Your task to perform on an android device: turn vacation reply on in the gmail app Image 0: 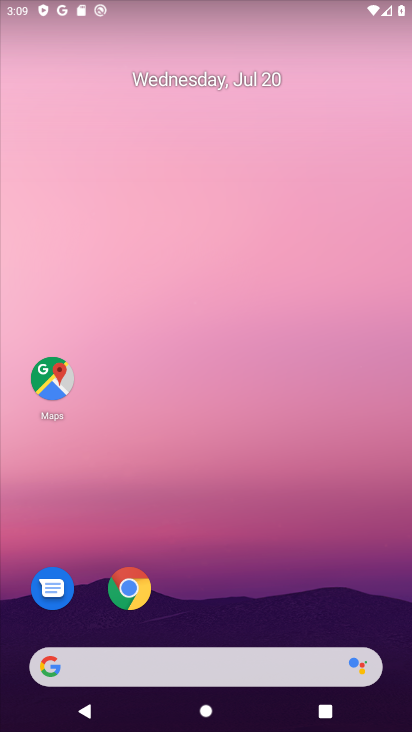
Step 0: press home button
Your task to perform on an android device: turn vacation reply on in the gmail app Image 1: 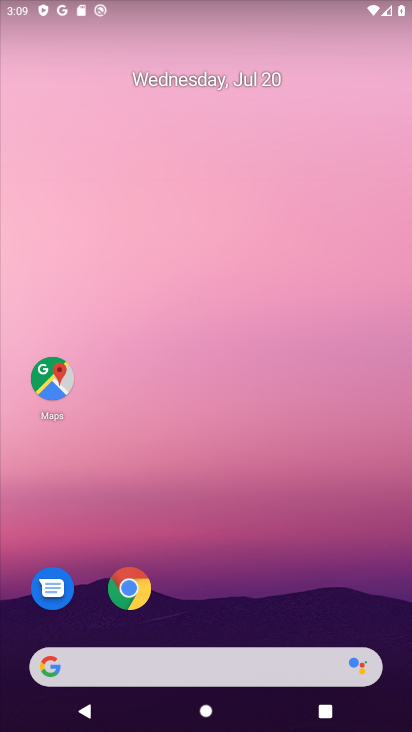
Step 1: press home button
Your task to perform on an android device: turn vacation reply on in the gmail app Image 2: 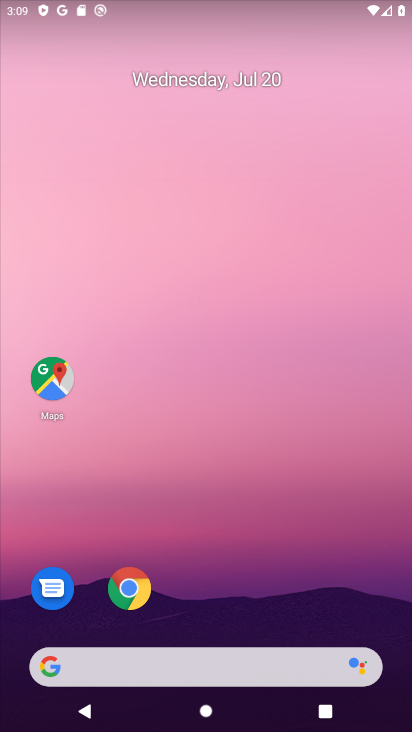
Step 2: drag from (213, 575) to (247, 278)
Your task to perform on an android device: turn vacation reply on in the gmail app Image 3: 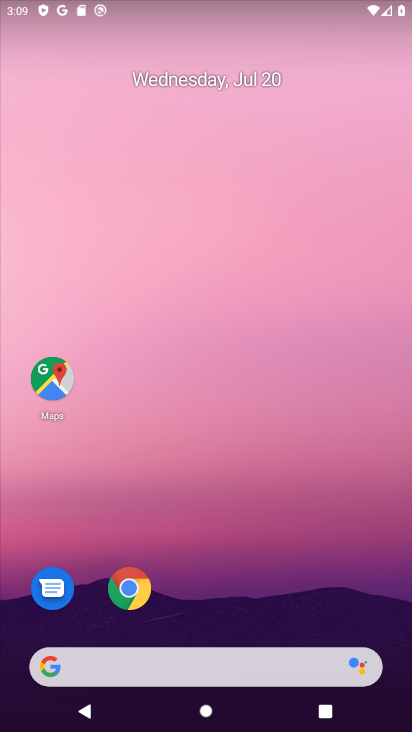
Step 3: click (151, 252)
Your task to perform on an android device: turn vacation reply on in the gmail app Image 4: 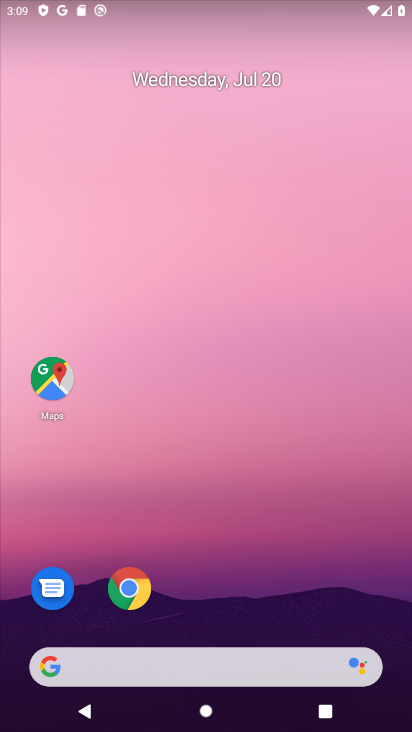
Step 4: drag from (215, 612) to (218, 100)
Your task to perform on an android device: turn vacation reply on in the gmail app Image 5: 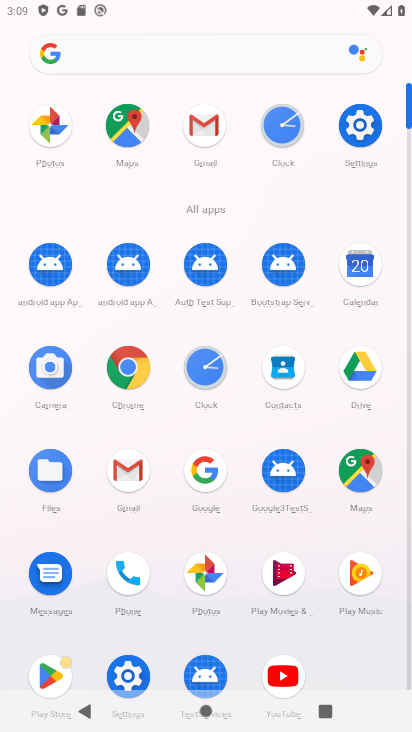
Step 5: click (218, 100)
Your task to perform on an android device: turn vacation reply on in the gmail app Image 6: 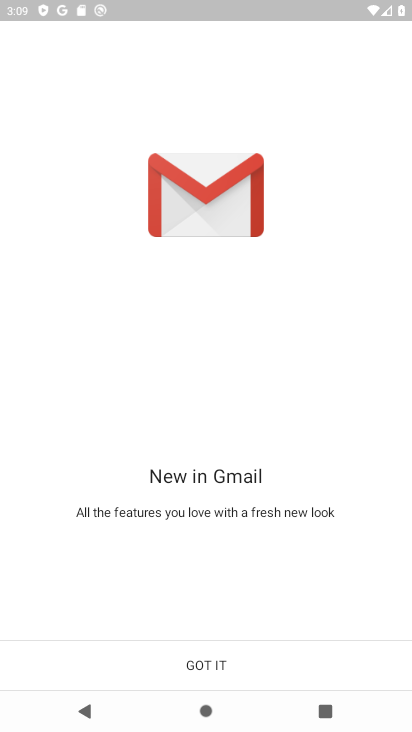
Step 6: click (281, 660)
Your task to perform on an android device: turn vacation reply on in the gmail app Image 7: 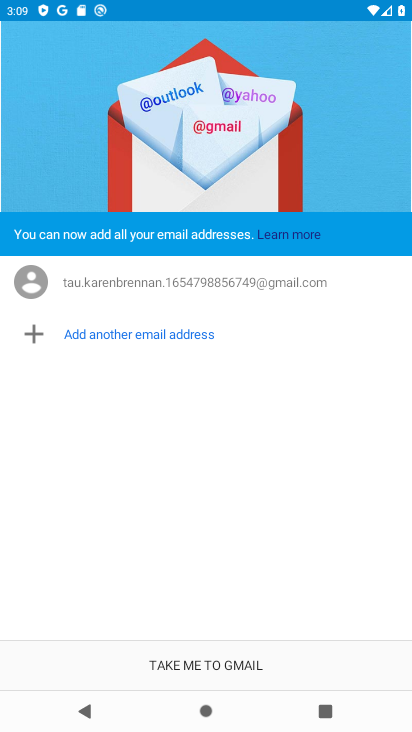
Step 7: click (194, 660)
Your task to perform on an android device: turn vacation reply on in the gmail app Image 8: 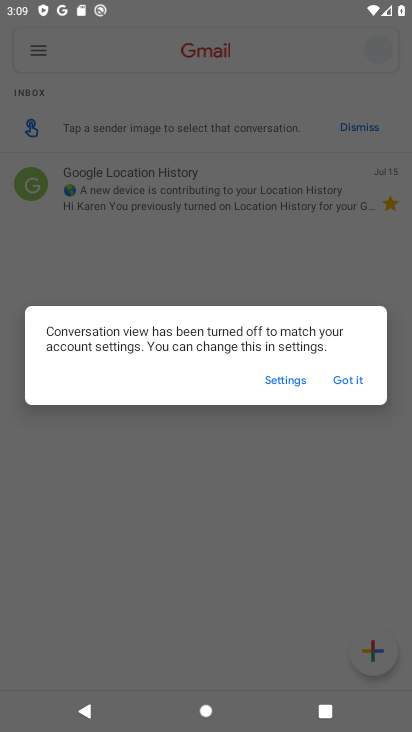
Step 8: click (359, 375)
Your task to perform on an android device: turn vacation reply on in the gmail app Image 9: 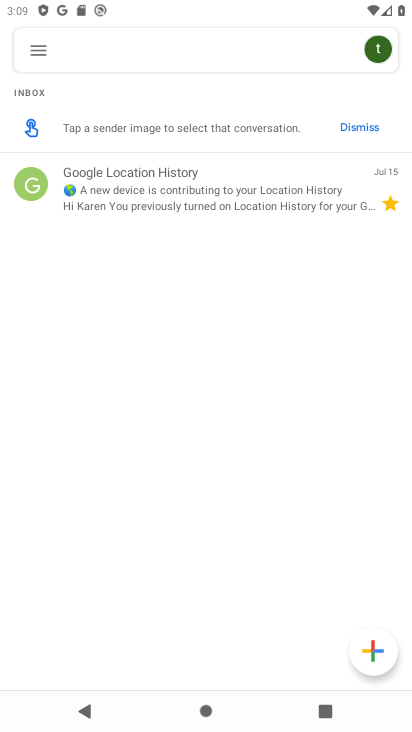
Step 9: click (65, 69)
Your task to perform on an android device: turn vacation reply on in the gmail app Image 10: 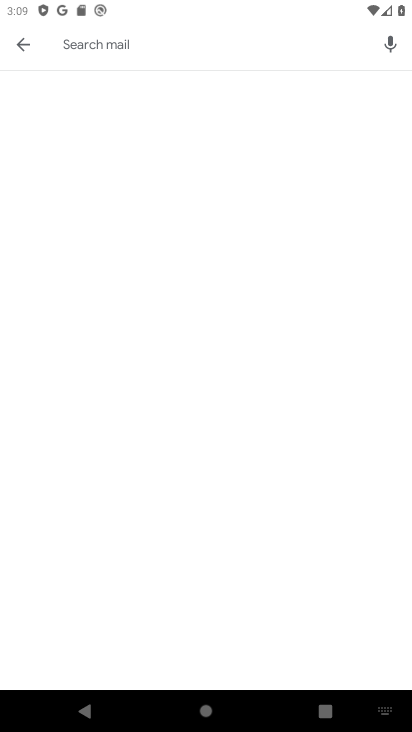
Step 10: click (28, 50)
Your task to perform on an android device: turn vacation reply on in the gmail app Image 11: 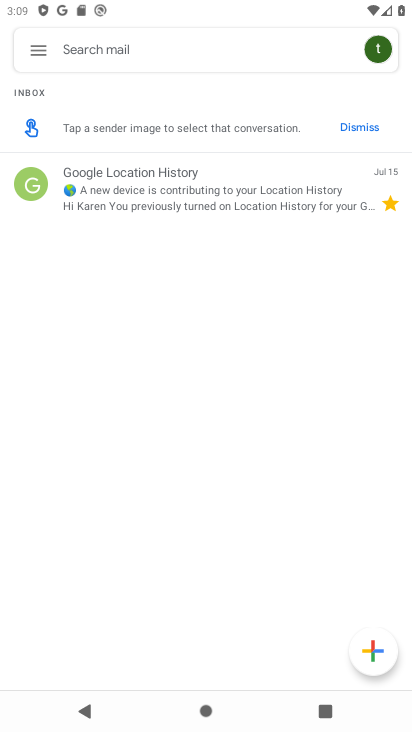
Step 11: click (28, 50)
Your task to perform on an android device: turn vacation reply on in the gmail app Image 12: 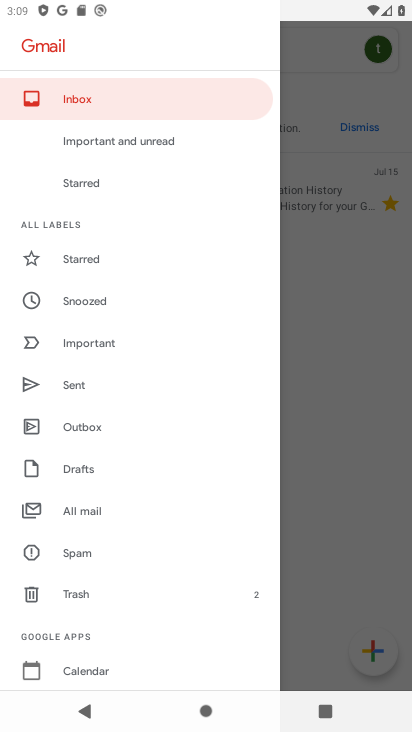
Step 12: drag from (109, 642) to (133, 243)
Your task to perform on an android device: turn vacation reply on in the gmail app Image 13: 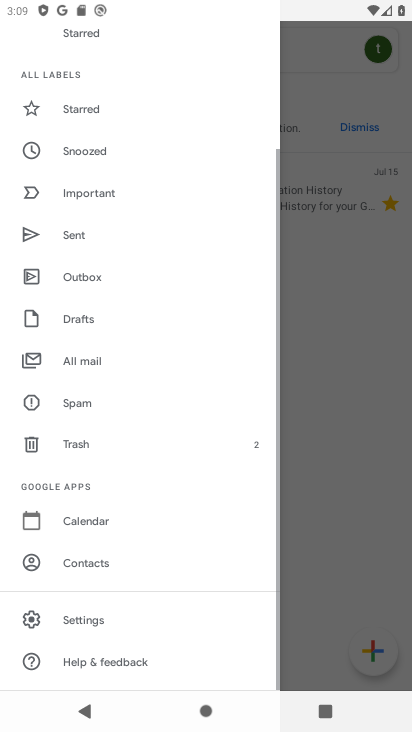
Step 13: click (111, 633)
Your task to perform on an android device: turn vacation reply on in the gmail app Image 14: 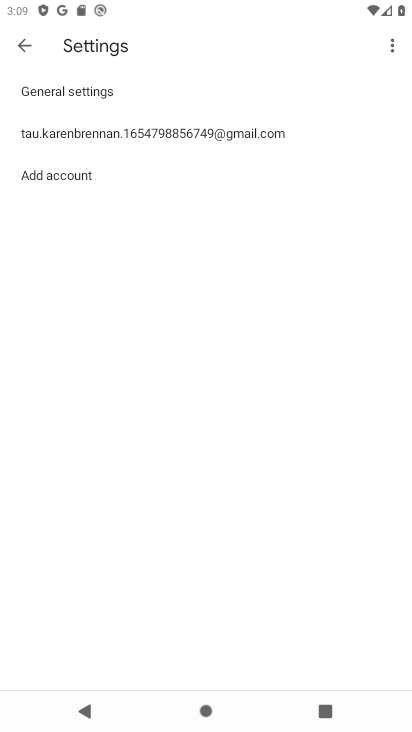
Step 14: click (234, 126)
Your task to perform on an android device: turn vacation reply on in the gmail app Image 15: 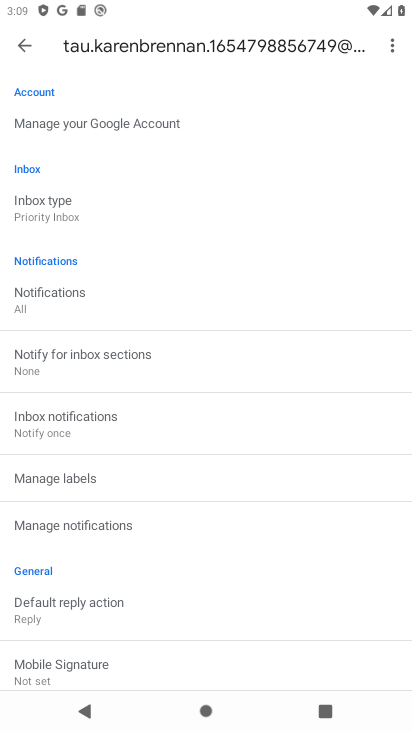
Step 15: drag from (113, 594) to (174, 63)
Your task to perform on an android device: turn vacation reply on in the gmail app Image 16: 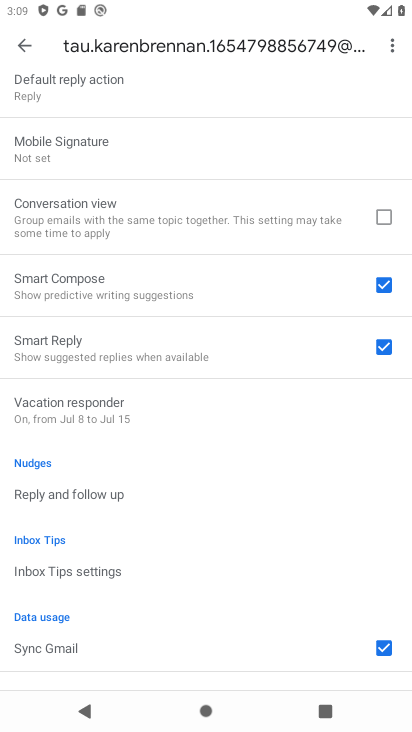
Step 16: click (102, 406)
Your task to perform on an android device: turn vacation reply on in the gmail app Image 17: 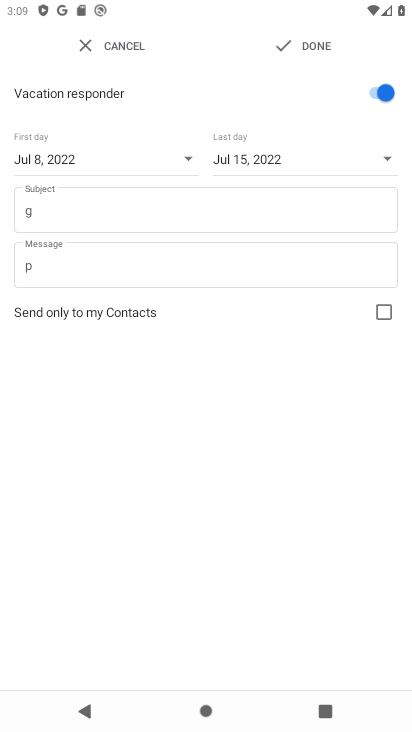
Step 17: task complete